Your task to perform on an android device: open a new tab in the chrome app Image 0: 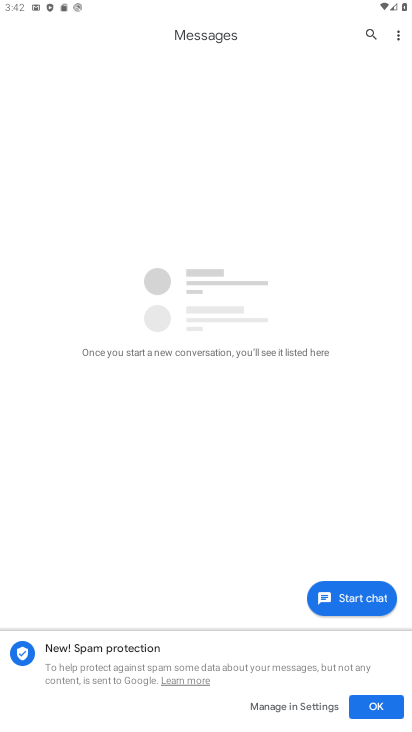
Step 0: press home button
Your task to perform on an android device: open a new tab in the chrome app Image 1: 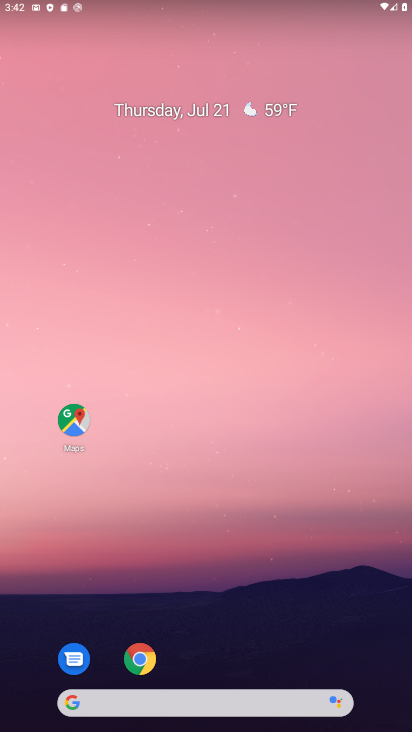
Step 1: click (143, 660)
Your task to perform on an android device: open a new tab in the chrome app Image 2: 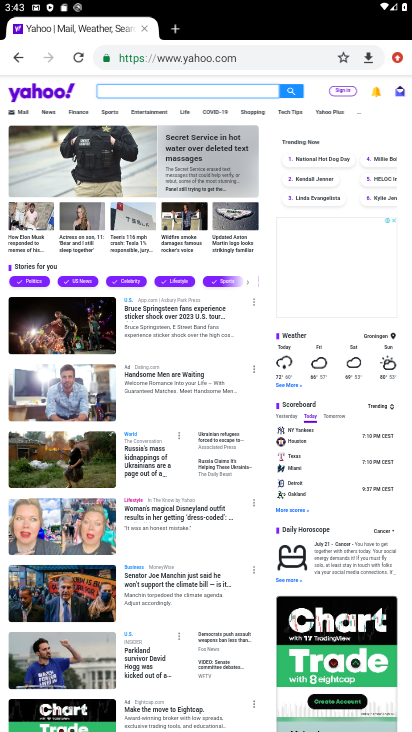
Step 2: click (396, 60)
Your task to perform on an android device: open a new tab in the chrome app Image 3: 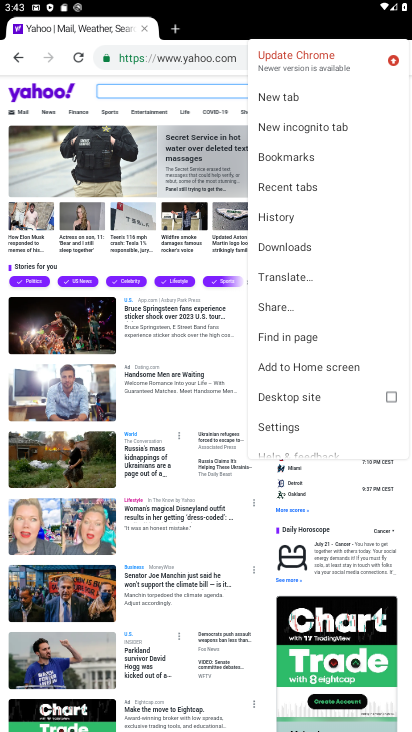
Step 3: click (290, 95)
Your task to perform on an android device: open a new tab in the chrome app Image 4: 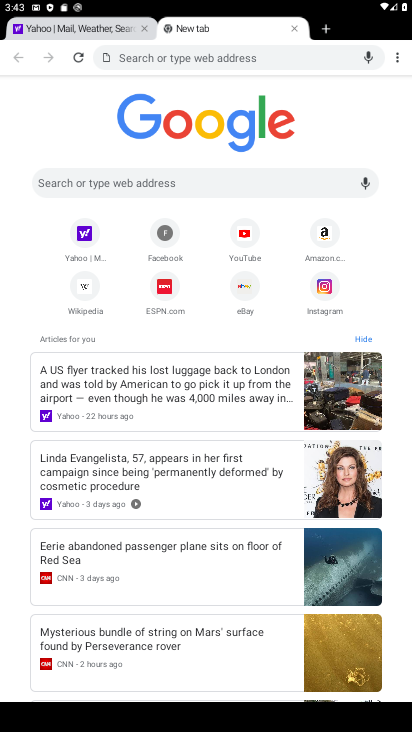
Step 4: task complete